Your task to perform on an android device: Open accessibility settings Image 0: 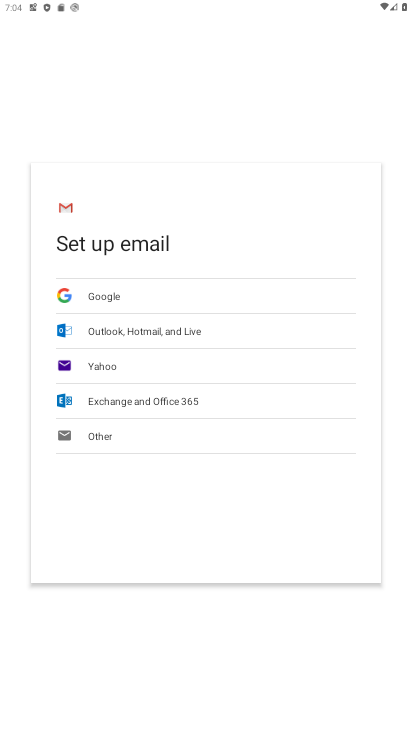
Step 0: press home button
Your task to perform on an android device: Open accessibility settings Image 1: 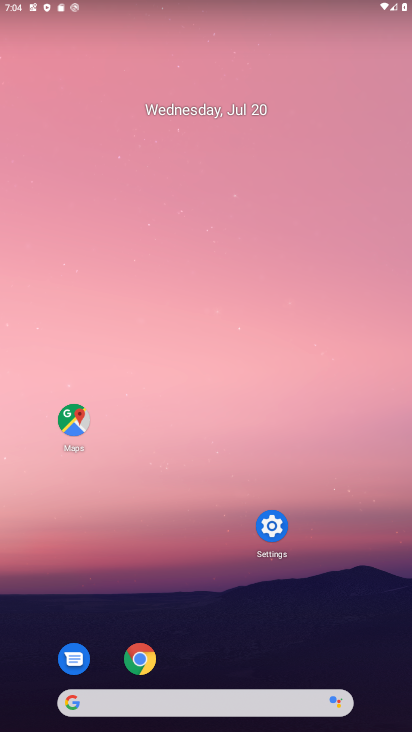
Step 1: click (293, 527)
Your task to perform on an android device: Open accessibility settings Image 2: 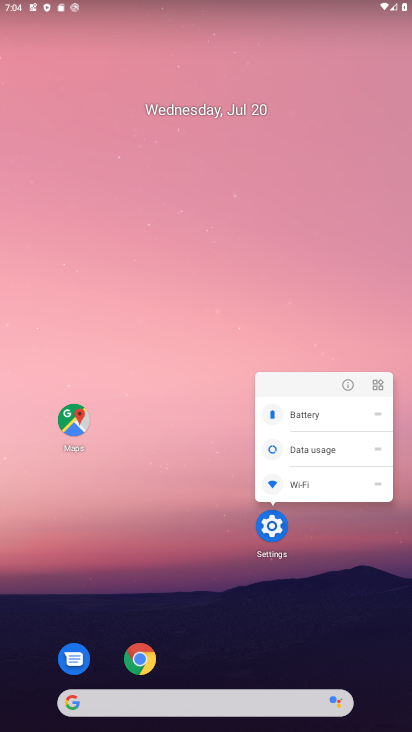
Step 2: click (283, 535)
Your task to perform on an android device: Open accessibility settings Image 3: 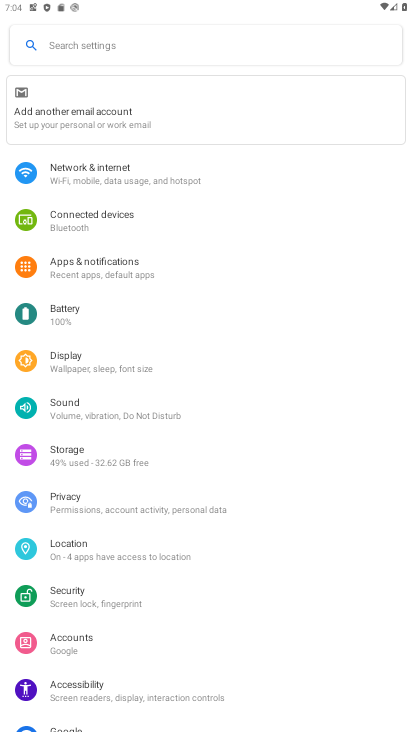
Step 3: click (108, 47)
Your task to perform on an android device: Open accessibility settings Image 4: 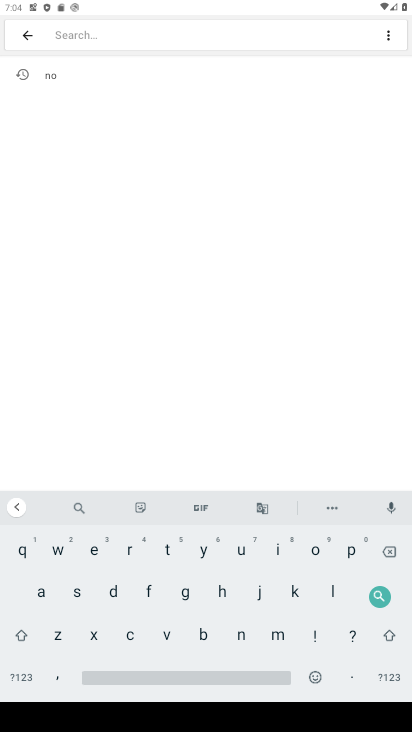
Step 4: click (40, 591)
Your task to perform on an android device: Open accessibility settings Image 5: 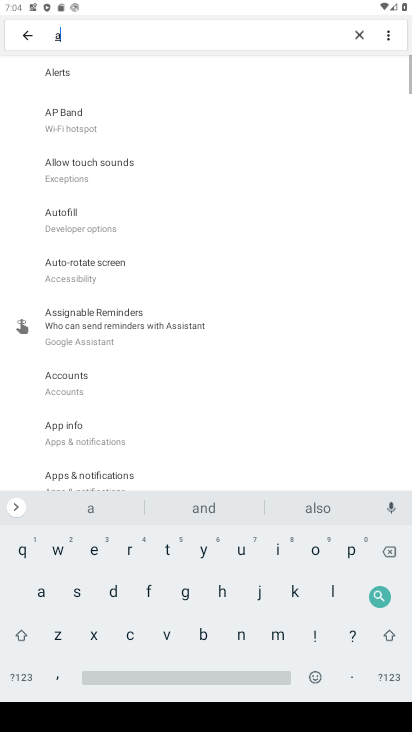
Step 5: click (124, 635)
Your task to perform on an android device: Open accessibility settings Image 6: 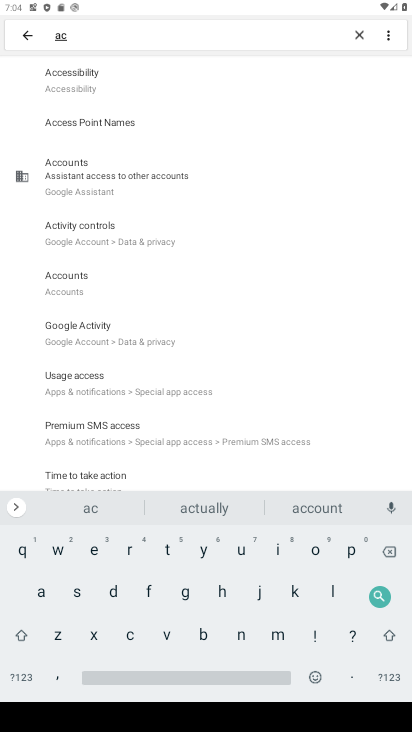
Step 6: click (99, 75)
Your task to perform on an android device: Open accessibility settings Image 7: 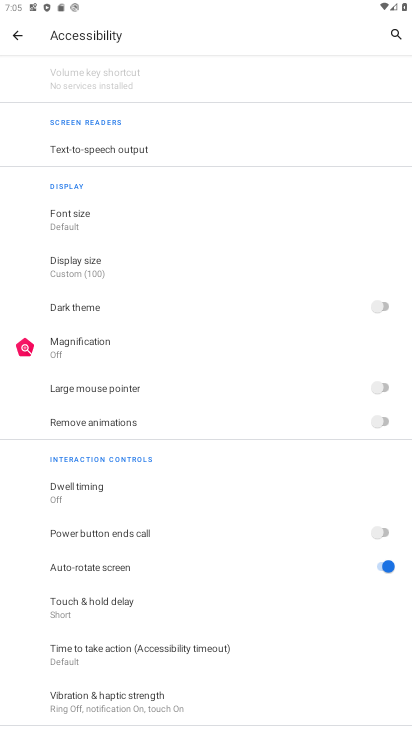
Step 7: task complete